Your task to perform on an android device: change the clock display to show seconds Image 0: 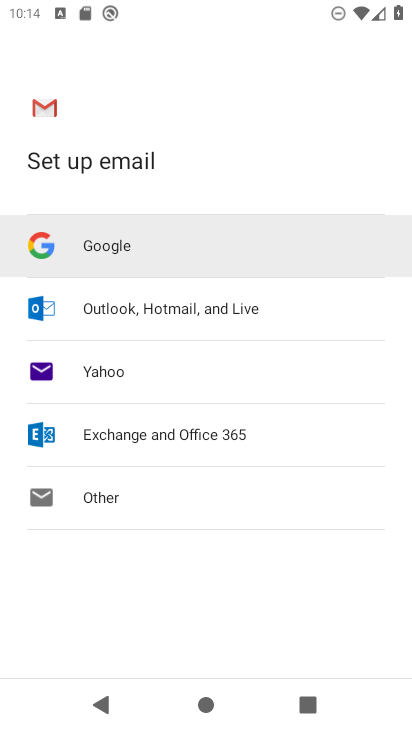
Step 0: press home button
Your task to perform on an android device: change the clock display to show seconds Image 1: 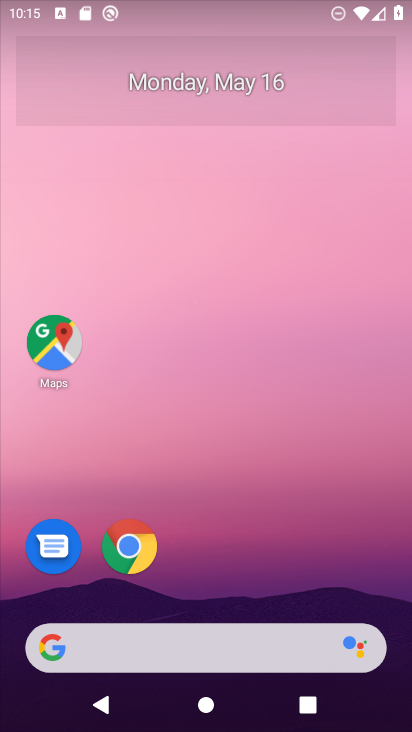
Step 1: drag from (217, 588) to (144, 73)
Your task to perform on an android device: change the clock display to show seconds Image 2: 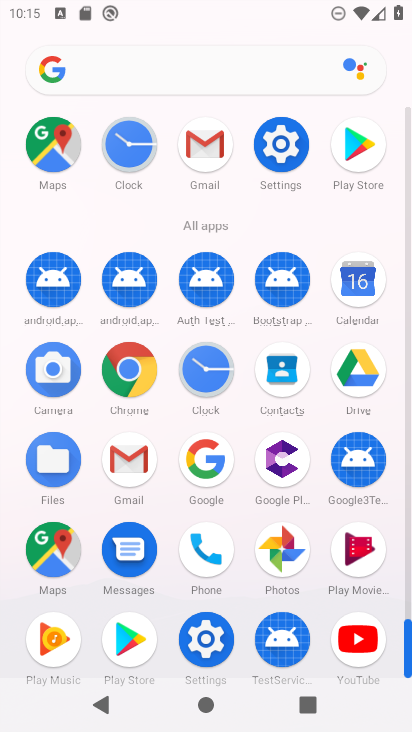
Step 2: click (207, 380)
Your task to perform on an android device: change the clock display to show seconds Image 3: 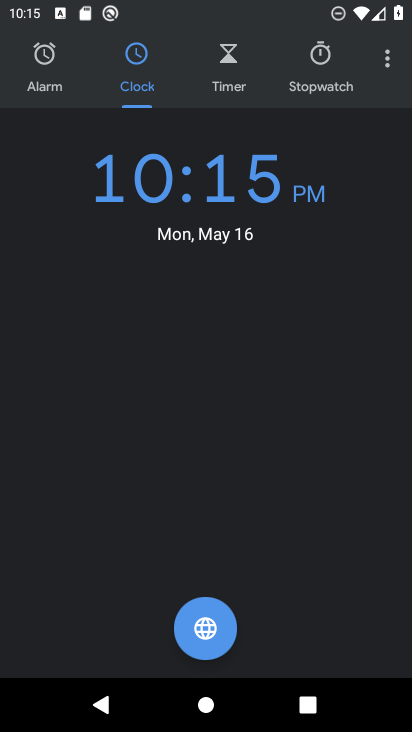
Step 3: click (393, 52)
Your task to perform on an android device: change the clock display to show seconds Image 4: 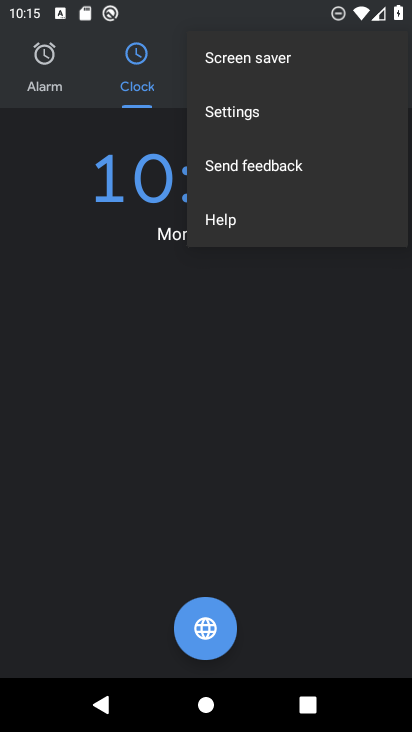
Step 4: click (249, 102)
Your task to perform on an android device: change the clock display to show seconds Image 5: 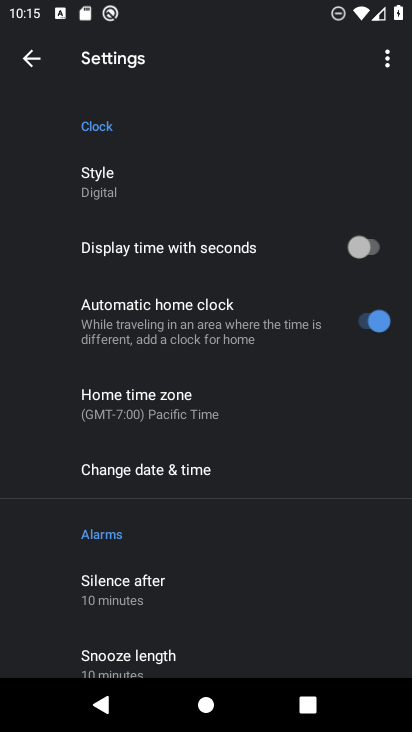
Step 5: click (375, 251)
Your task to perform on an android device: change the clock display to show seconds Image 6: 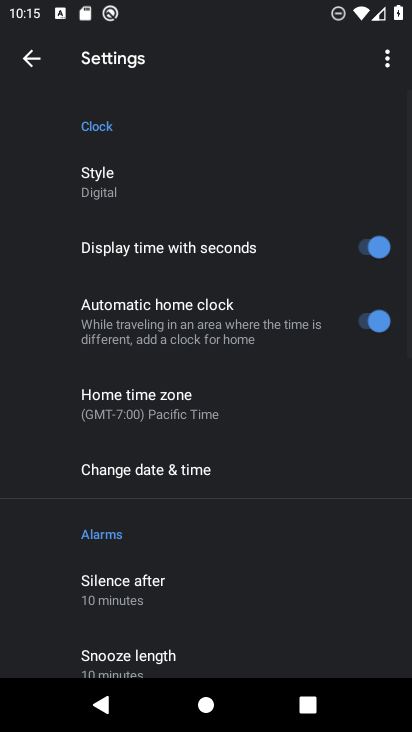
Step 6: task complete